Your task to perform on an android device: Is it going to rain tomorrow? Image 0: 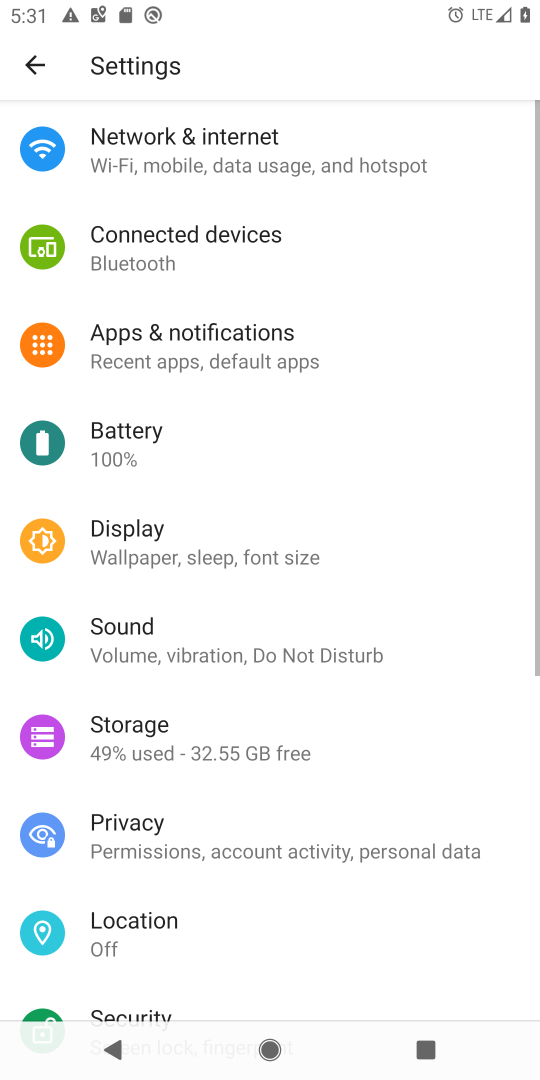
Step 0: press back button
Your task to perform on an android device: Is it going to rain tomorrow? Image 1: 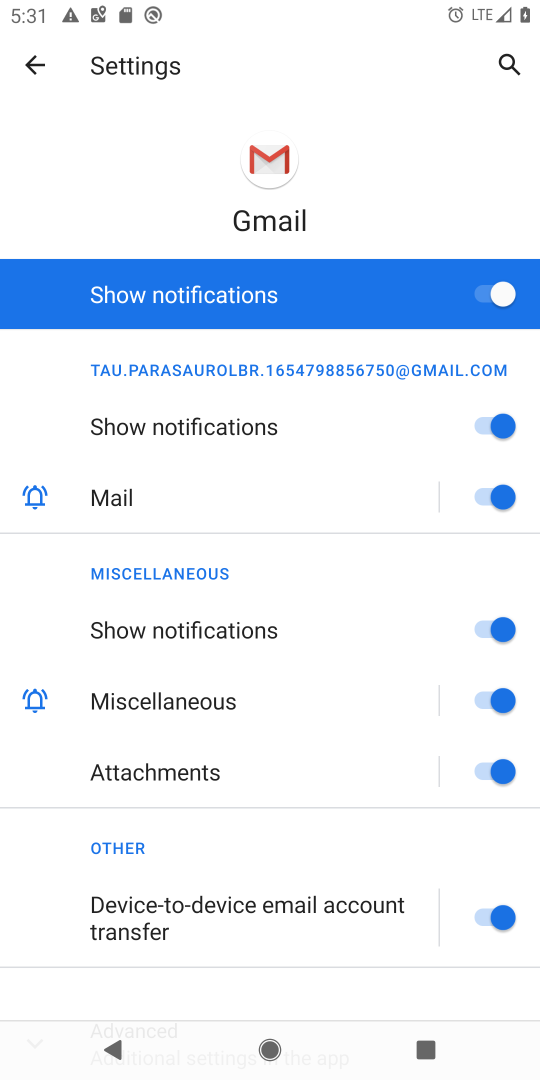
Step 1: press back button
Your task to perform on an android device: Is it going to rain tomorrow? Image 2: 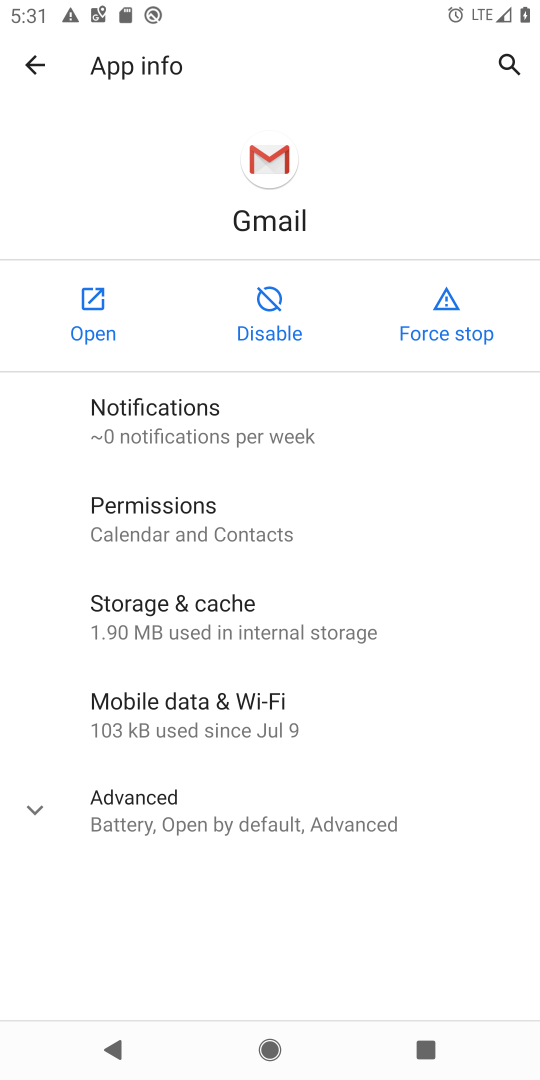
Step 2: press back button
Your task to perform on an android device: Is it going to rain tomorrow? Image 3: 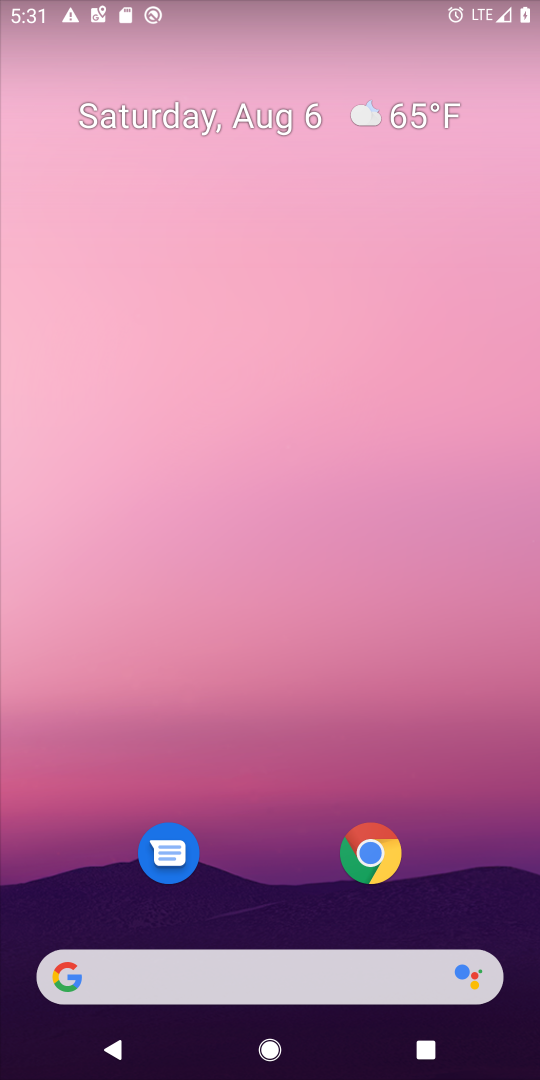
Step 3: drag from (264, 875) to (311, 140)
Your task to perform on an android device: Is it going to rain tomorrow? Image 4: 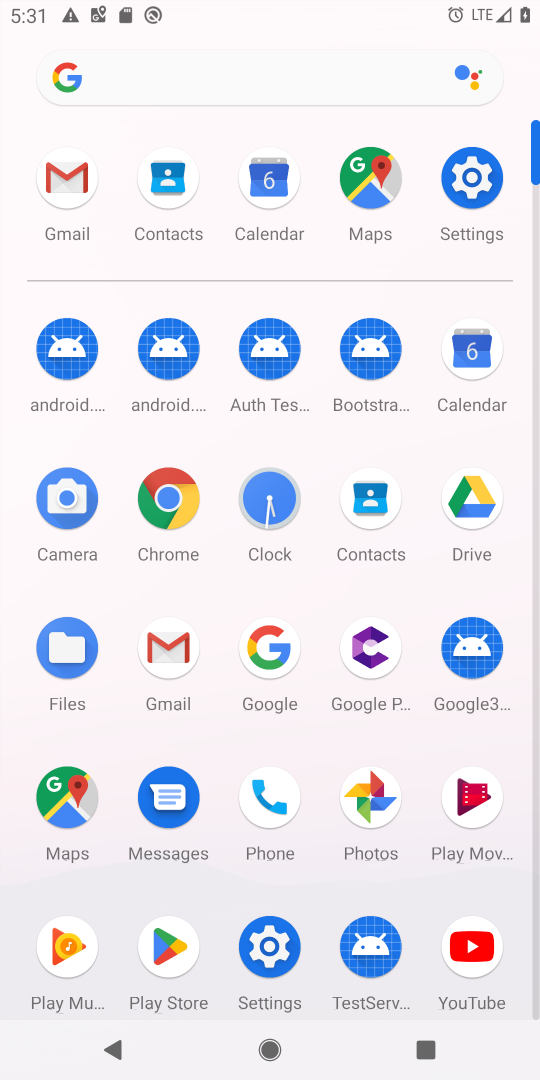
Step 4: click (190, 79)
Your task to perform on an android device: Is it going to rain tomorrow? Image 5: 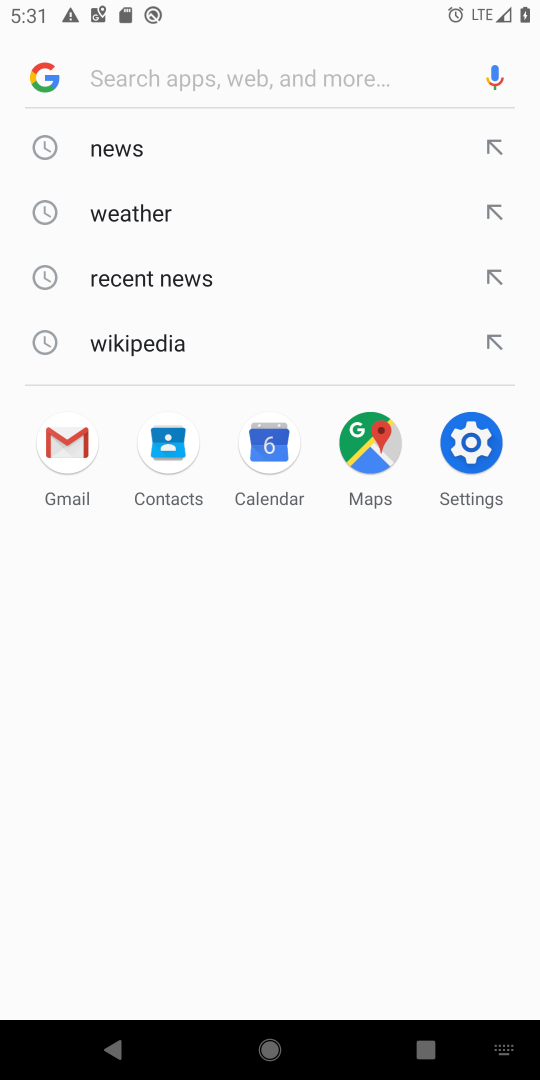
Step 5: click (136, 203)
Your task to perform on an android device: Is it going to rain tomorrow? Image 6: 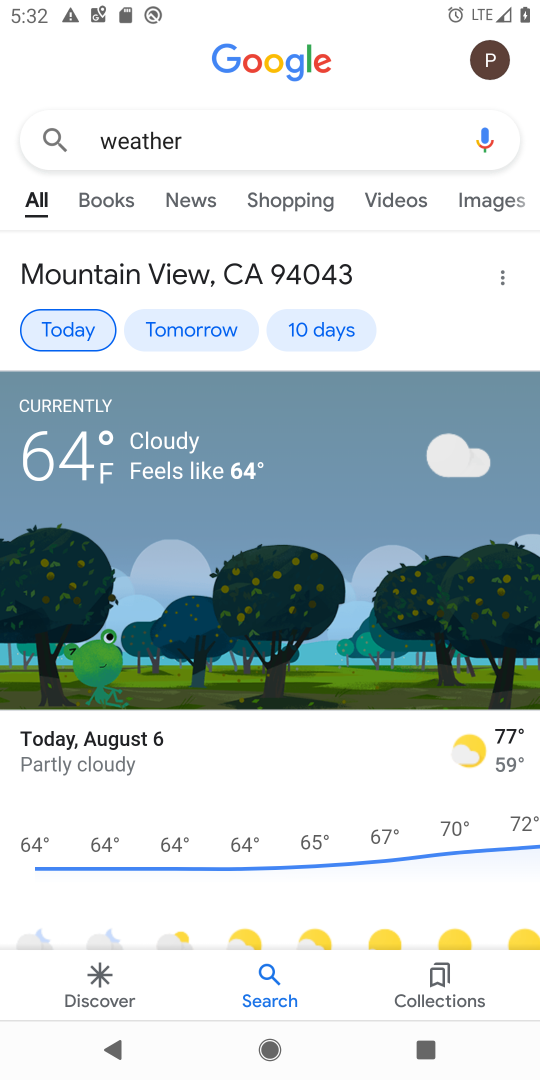
Step 6: click (183, 335)
Your task to perform on an android device: Is it going to rain tomorrow? Image 7: 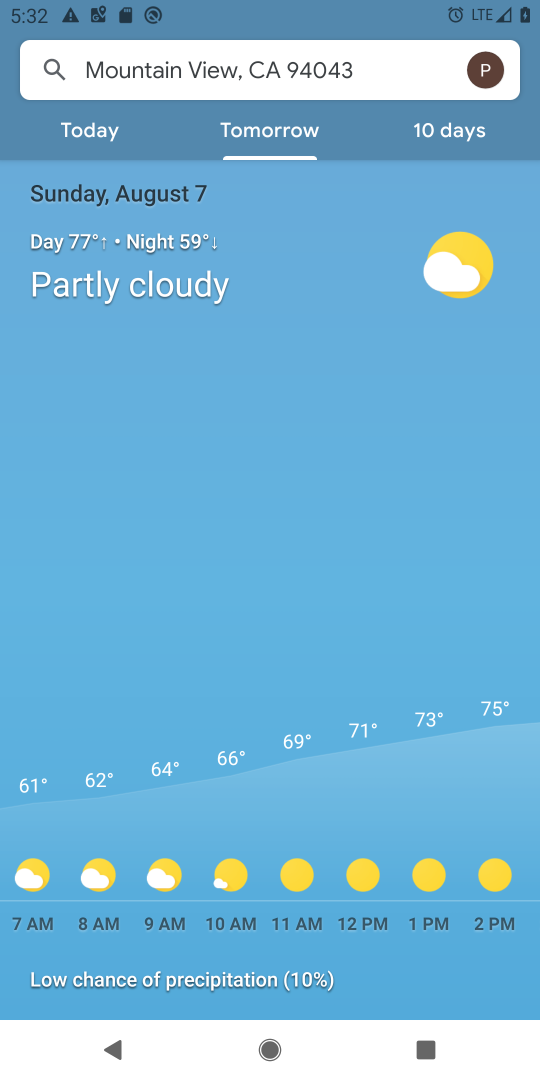
Step 7: task complete